Your task to perform on an android device: Open Google Chrome Image 0: 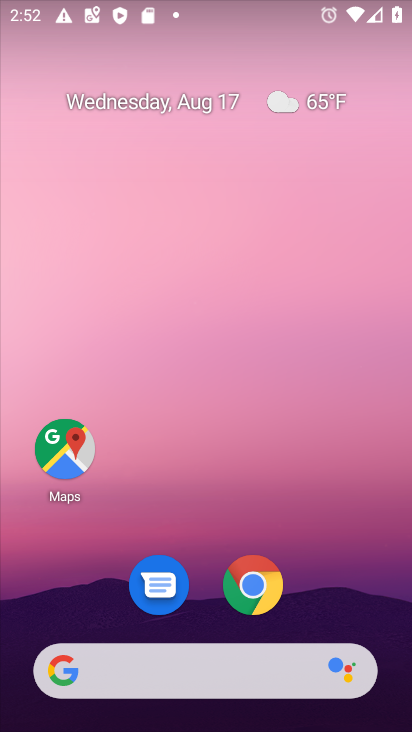
Step 0: click (253, 580)
Your task to perform on an android device: Open Google Chrome Image 1: 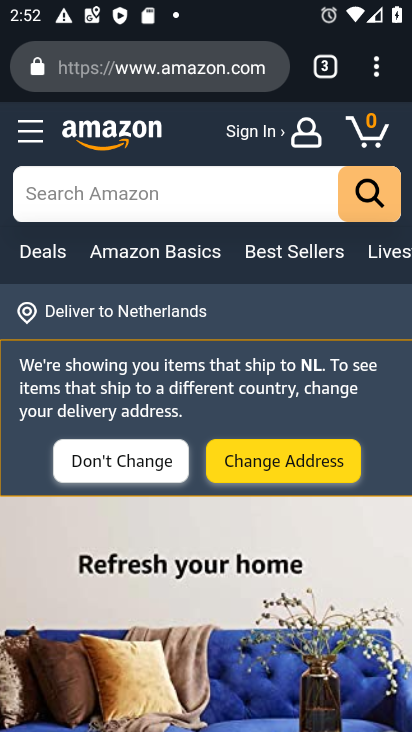
Step 1: click (378, 73)
Your task to perform on an android device: Open Google Chrome Image 2: 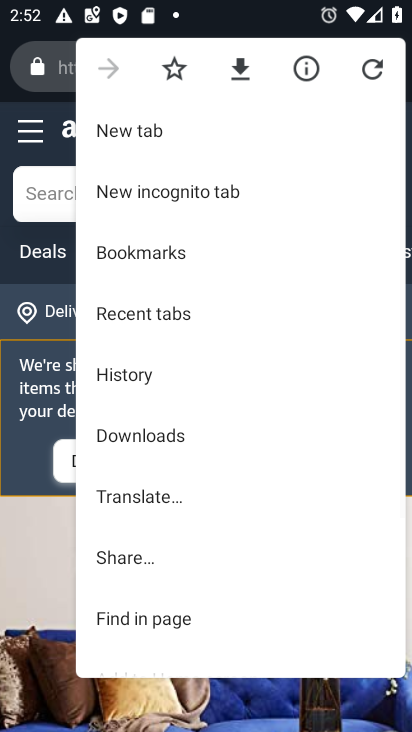
Step 2: click (222, 130)
Your task to perform on an android device: Open Google Chrome Image 3: 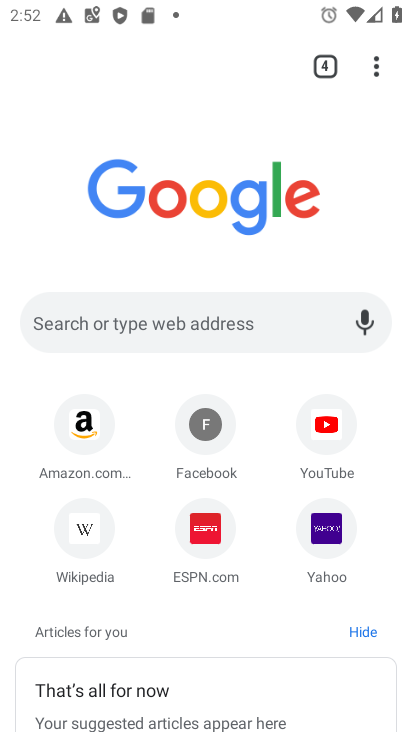
Step 3: task complete